Your task to perform on an android device: What's the weather? Image 0: 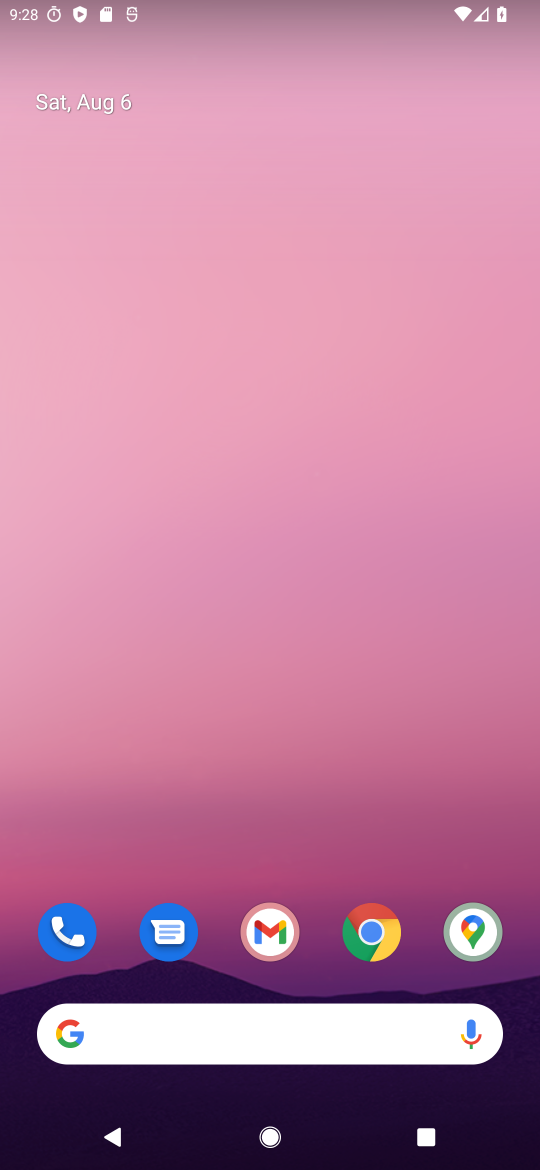
Step 0: click (225, 1035)
Your task to perform on an android device: What's the weather? Image 1: 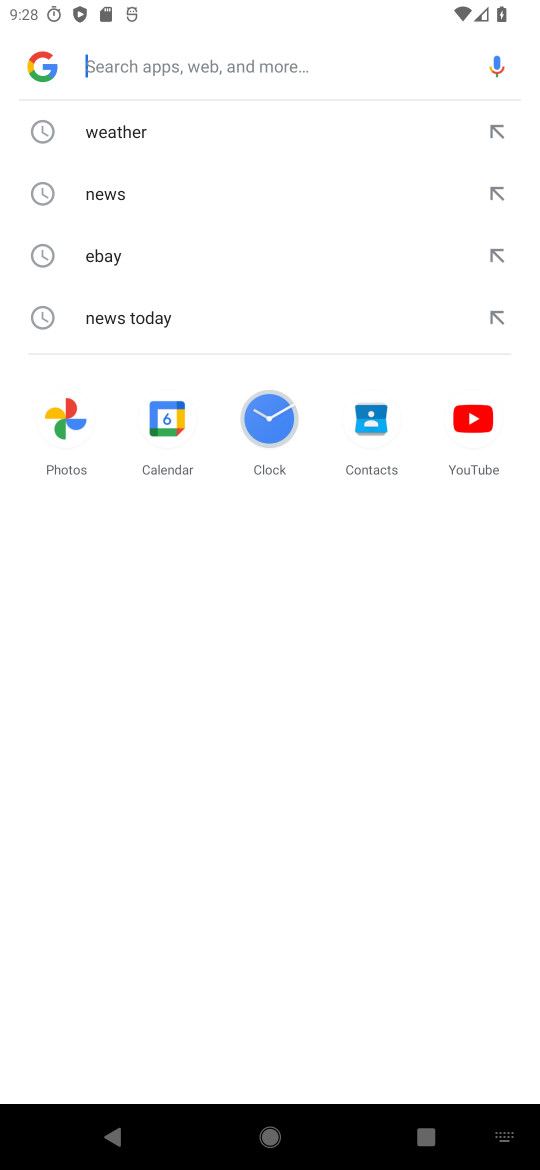
Step 1: click (121, 132)
Your task to perform on an android device: What's the weather? Image 2: 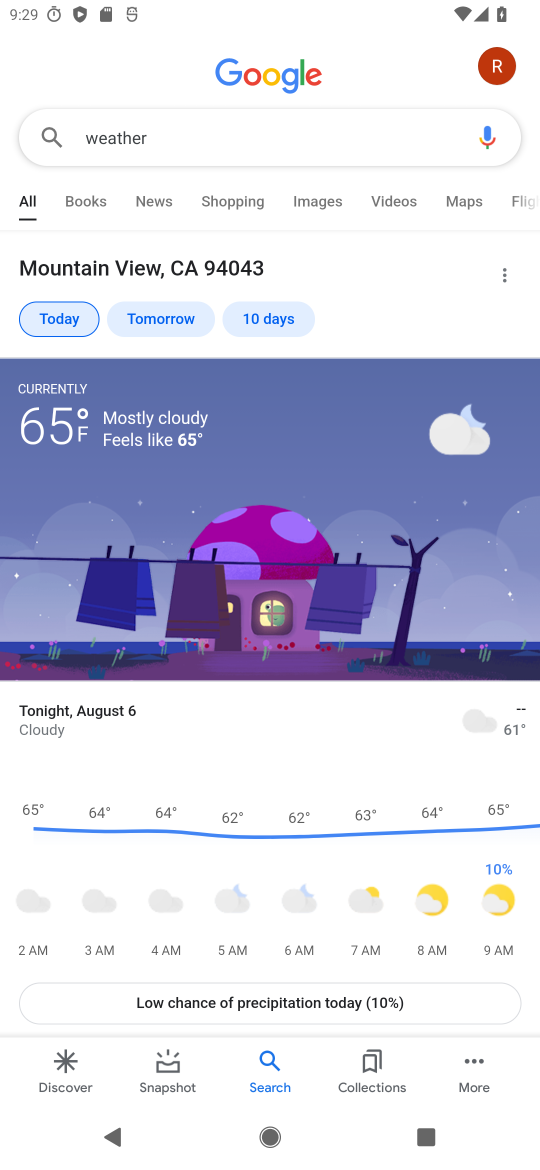
Step 2: task complete